Your task to perform on an android device: What's the weather? Image 0: 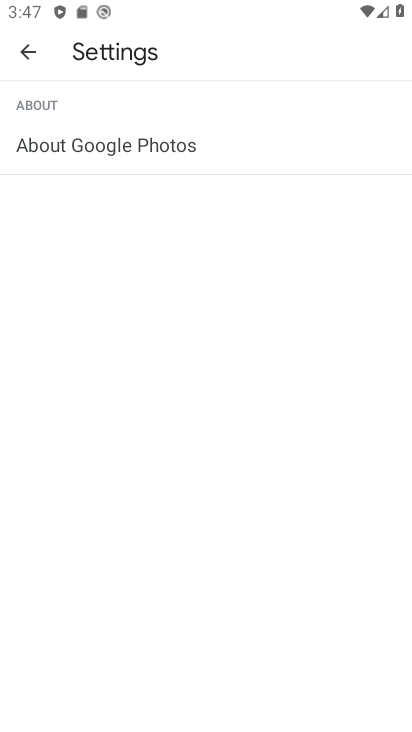
Step 0: press home button
Your task to perform on an android device: What's the weather? Image 1: 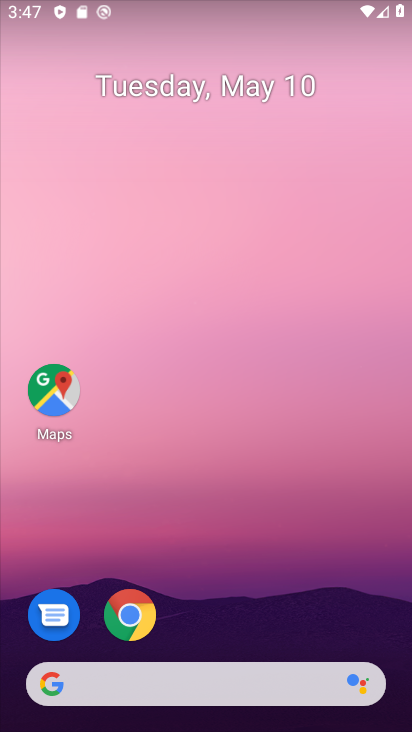
Step 1: drag from (219, 730) to (215, 230)
Your task to perform on an android device: What's the weather? Image 2: 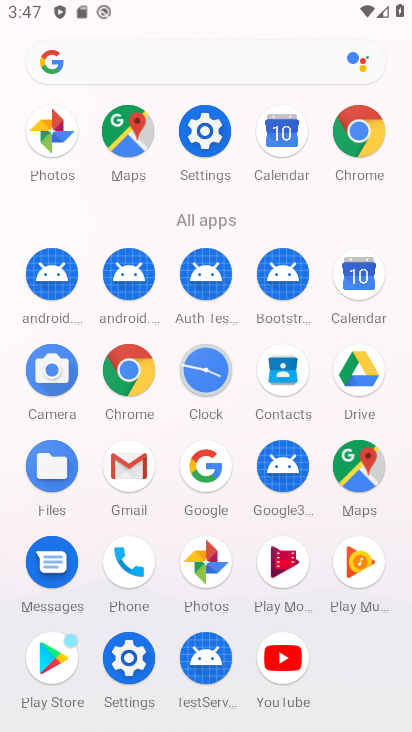
Step 2: click (206, 473)
Your task to perform on an android device: What's the weather? Image 3: 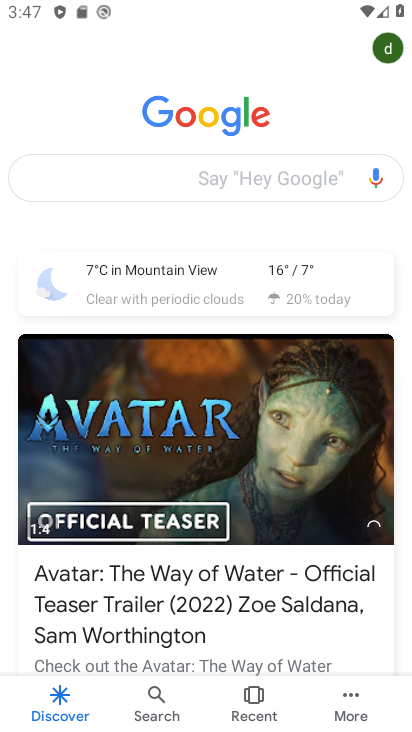
Step 3: click (187, 295)
Your task to perform on an android device: What's the weather? Image 4: 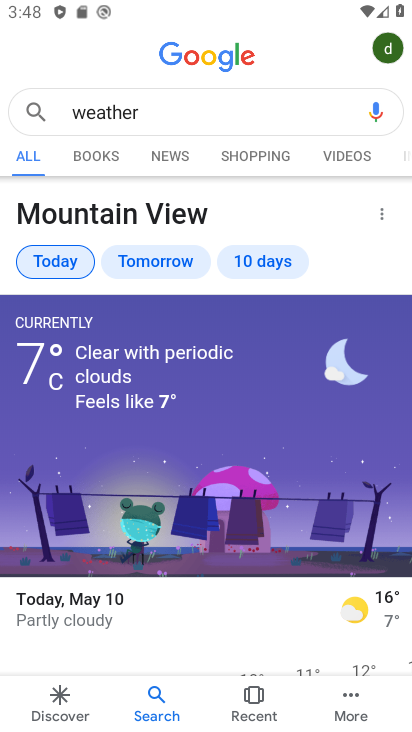
Step 4: task complete